Your task to perform on an android device: open device folders in google photos Image 0: 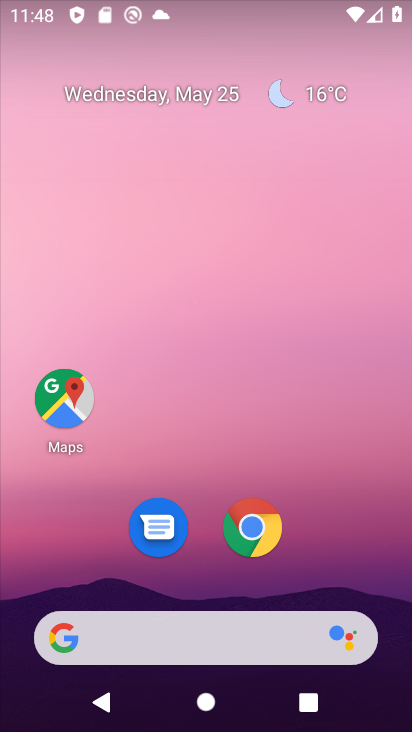
Step 0: drag from (381, 420) to (320, 60)
Your task to perform on an android device: open device folders in google photos Image 1: 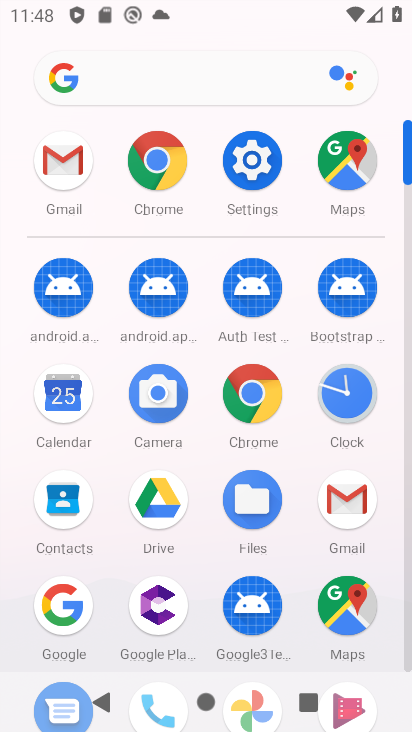
Step 1: click (401, 652)
Your task to perform on an android device: open device folders in google photos Image 2: 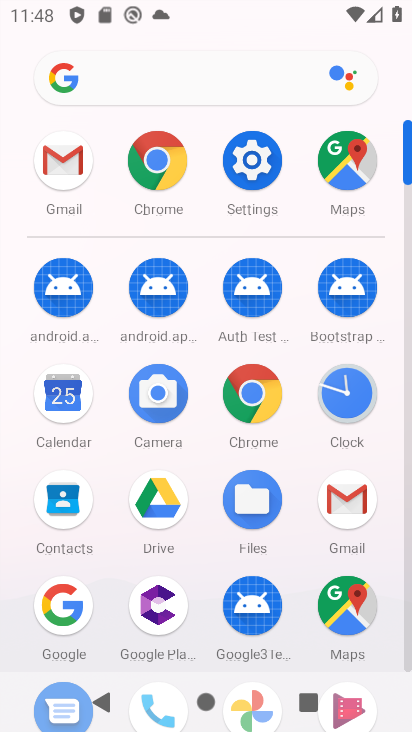
Step 2: click (401, 652)
Your task to perform on an android device: open device folders in google photos Image 3: 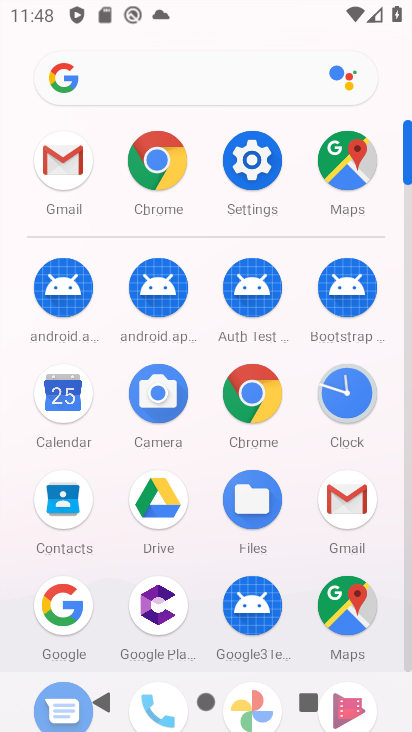
Step 3: click (409, 656)
Your task to perform on an android device: open device folders in google photos Image 4: 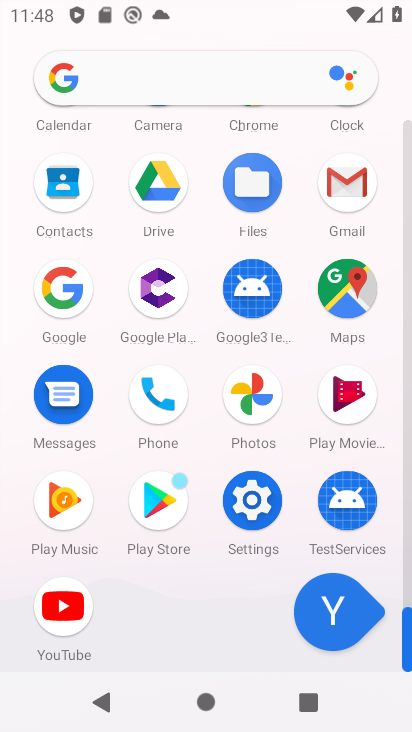
Step 4: click (409, 656)
Your task to perform on an android device: open device folders in google photos Image 5: 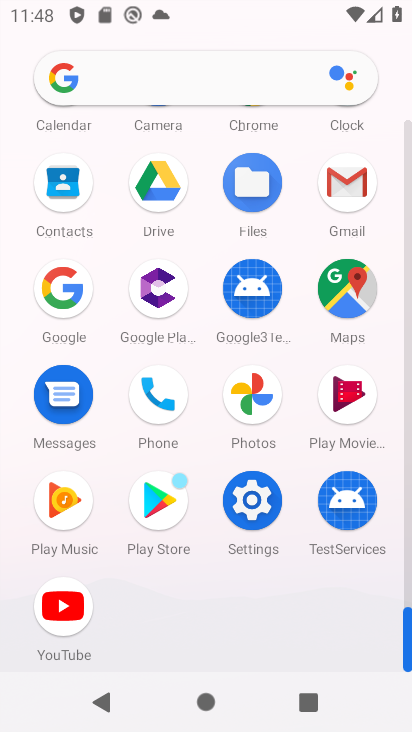
Step 5: click (409, 656)
Your task to perform on an android device: open device folders in google photos Image 6: 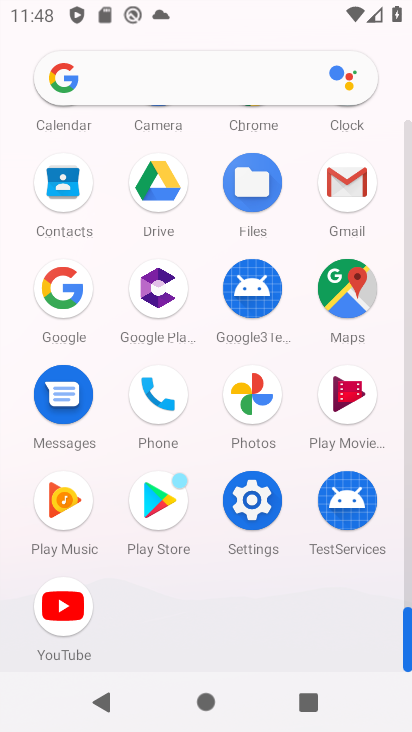
Step 6: click (259, 398)
Your task to perform on an android device: open device folders in google photos Image 7: 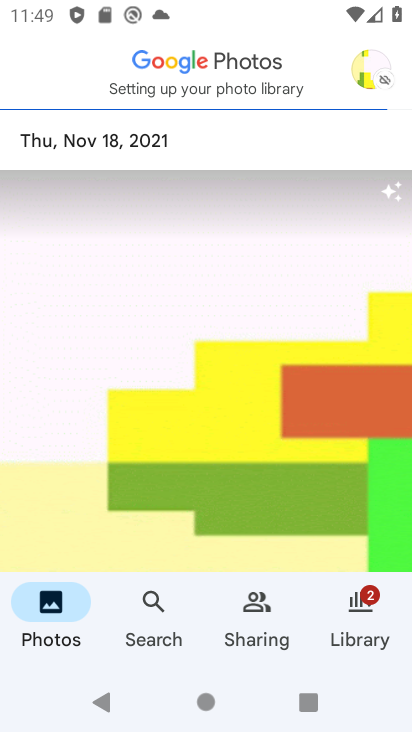
Step 7: task complete